Your task to perform on an android device: Open location settings Image 0: 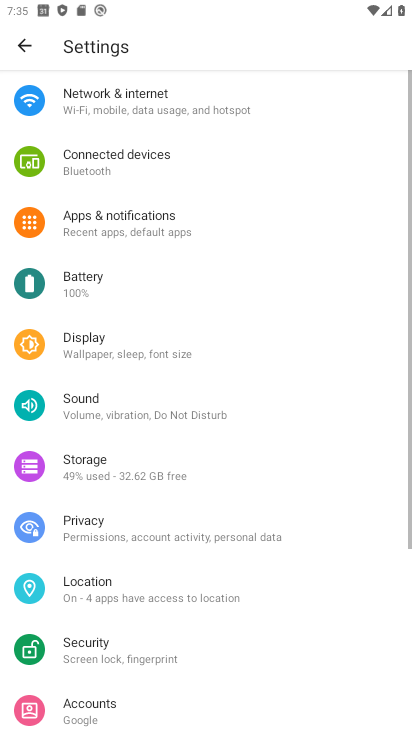
Step 0: press home button
Your task to perform on an android device: Open location settings Image 1: 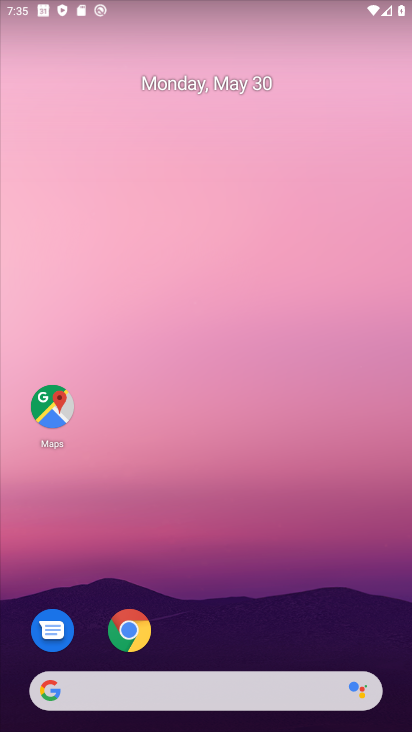
Step 1: drag from (171, 692) to (293, 221)
Your task to perform on an android device: Open location settings Image 2: 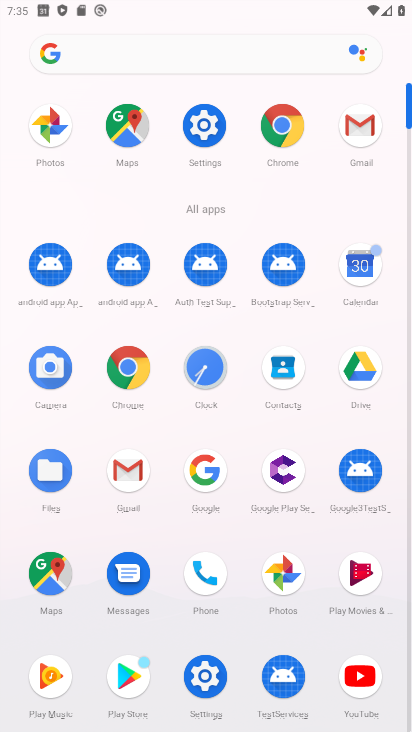
Step 2: click (203, 135)
Your task to perform on an android device: Open location settings Image 3: 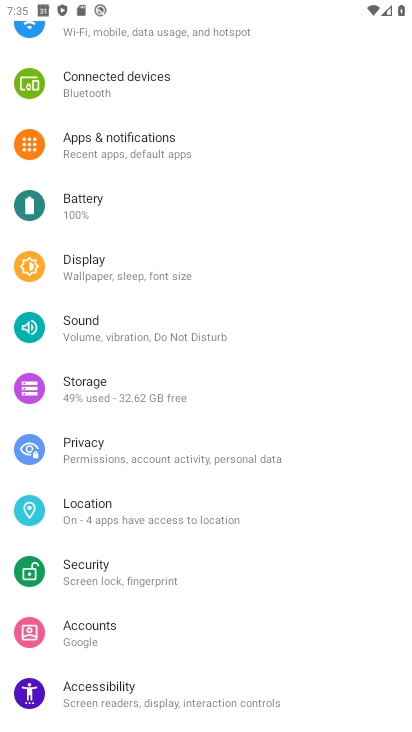
Step 3: click (103, 518)
Your task to perform on an android device: Open location settings Image 4: 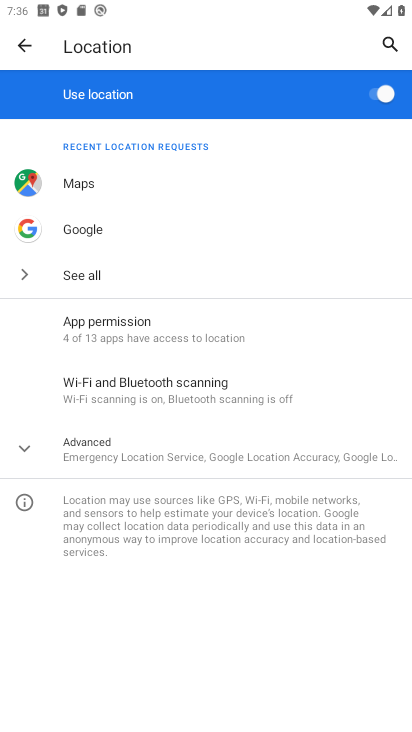
Step 4: task complete